Your task to perform on an android device: Open calendar and show me the fourth week of next month Image 0: 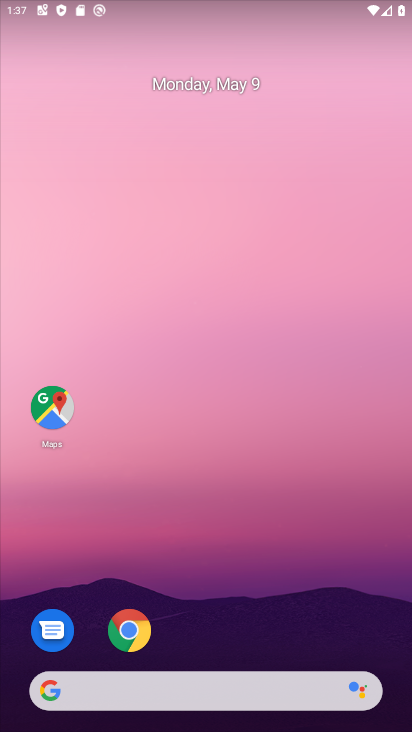
Step 0: drag from (225, 704) to (258, 121)
Your task to perform on an android device: Open calendar and show me the fourth week of next month Image 1: 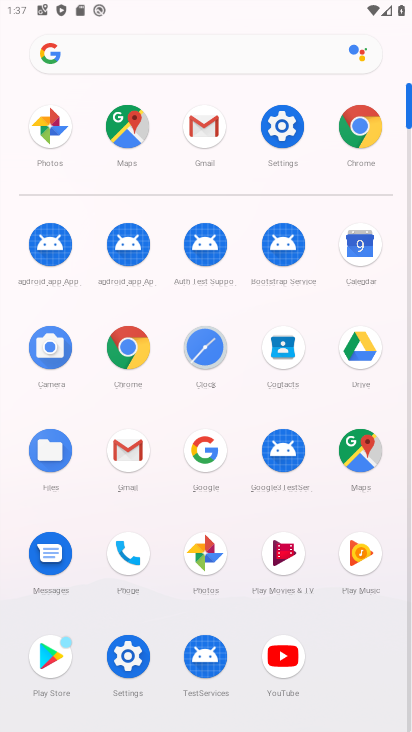
Step 1: click (358, 253)
Your task to perform on an android device: Open calendar and show me the fourth week of next month Image 2: 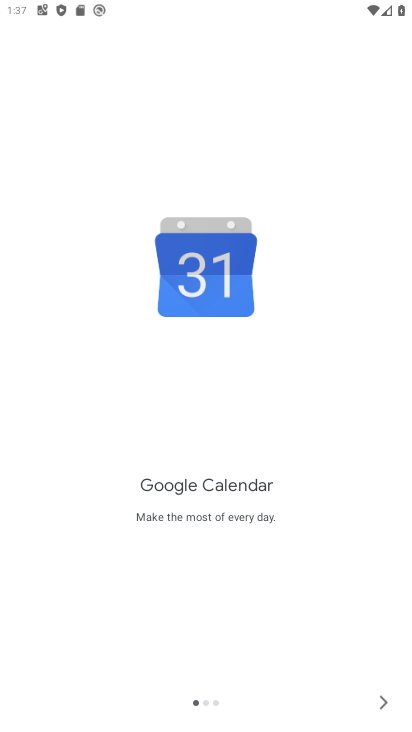
Step 2: click (376, 700)
Your task to perform on an android device: Open calendar and show me the fourth week of next month Image 3: 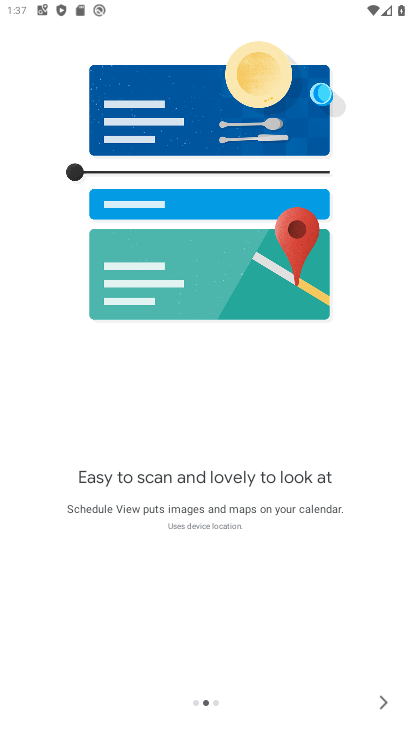
Step 3: click (367, 708)
Your task to perform on an android device: Open calendar and show me the fourth week of next month Image 4: 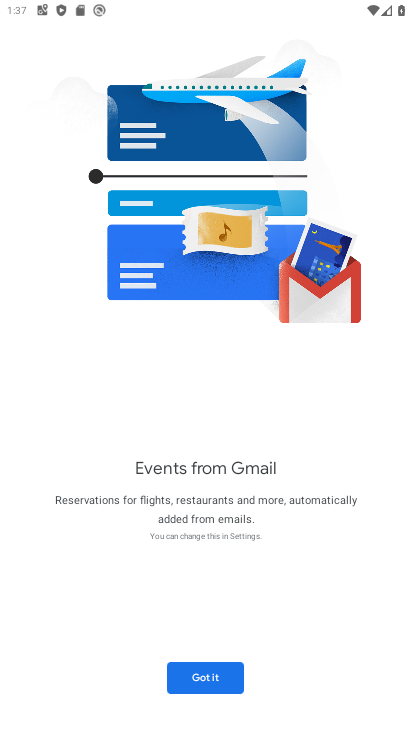
Step 4: click (213, 682)
Your task to perform on an android device: Open calendar and show me the fourth week of next month Image 5: 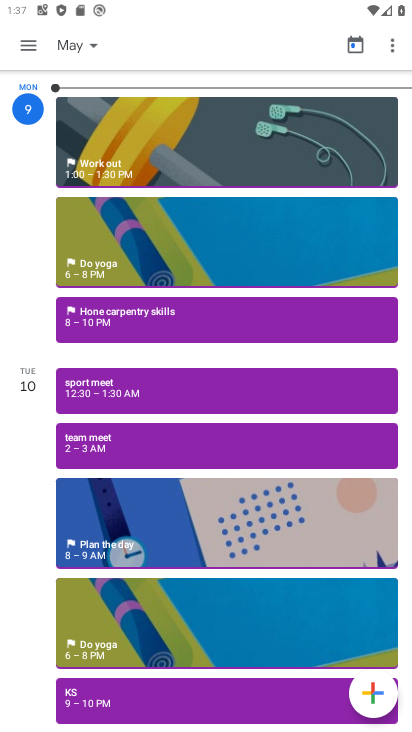
Step 5: click (27, 38)
Your task to perform on an android device: Open calendar and show me the fourth week of next month Image 6: 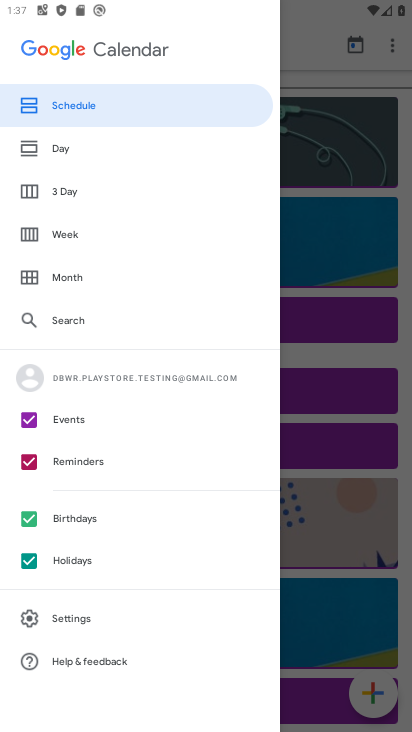
Step 6: click (75, 285)
Your task to perform on an android device: Open calendar and show me the fourth week of next month Image 7: 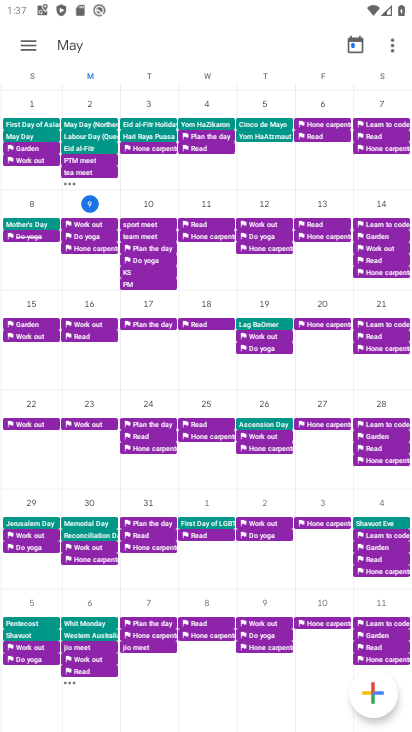
Step 7: drag from (394, 441) to (0, 402)
Your task to perform on an android device: Open calendar and show me the fourth week of next month Image 8: 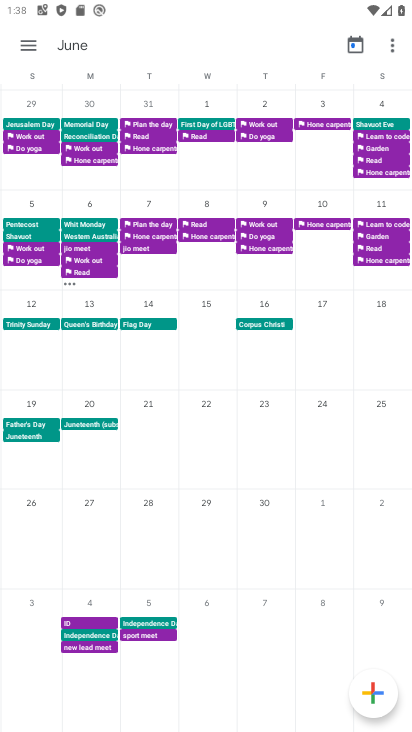
Step 8: click (77, 425)
Your task to perform on an android device: Open calendar and show me the fourth week of next month Image 9: 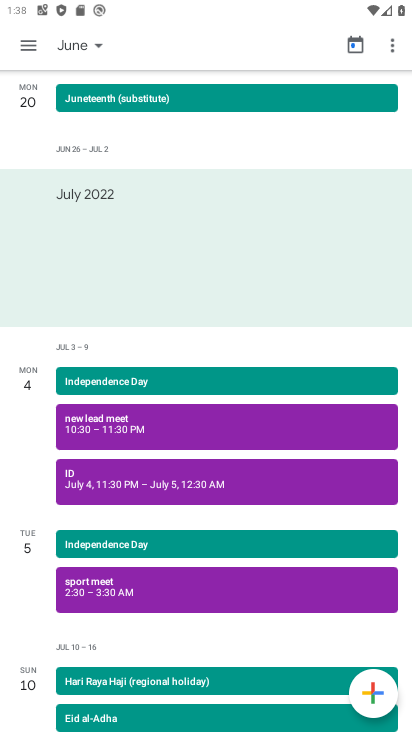
Step 9: task complete